Your task to perform on an android device: turn vacation reply on in the gmail app Image 0: 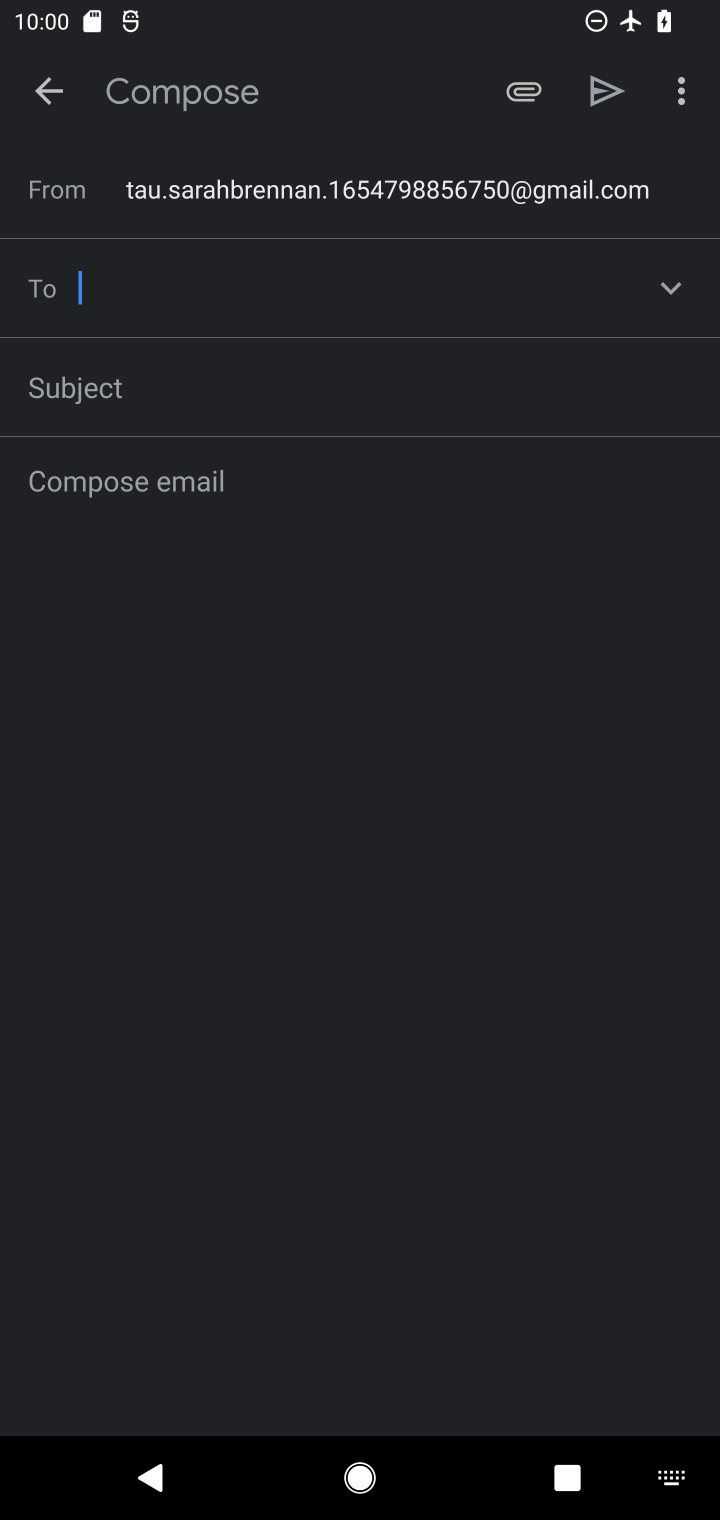
Step 0: press home button
Your task to perform on an android device: turn vacation reply on in the gmail app Image 1: 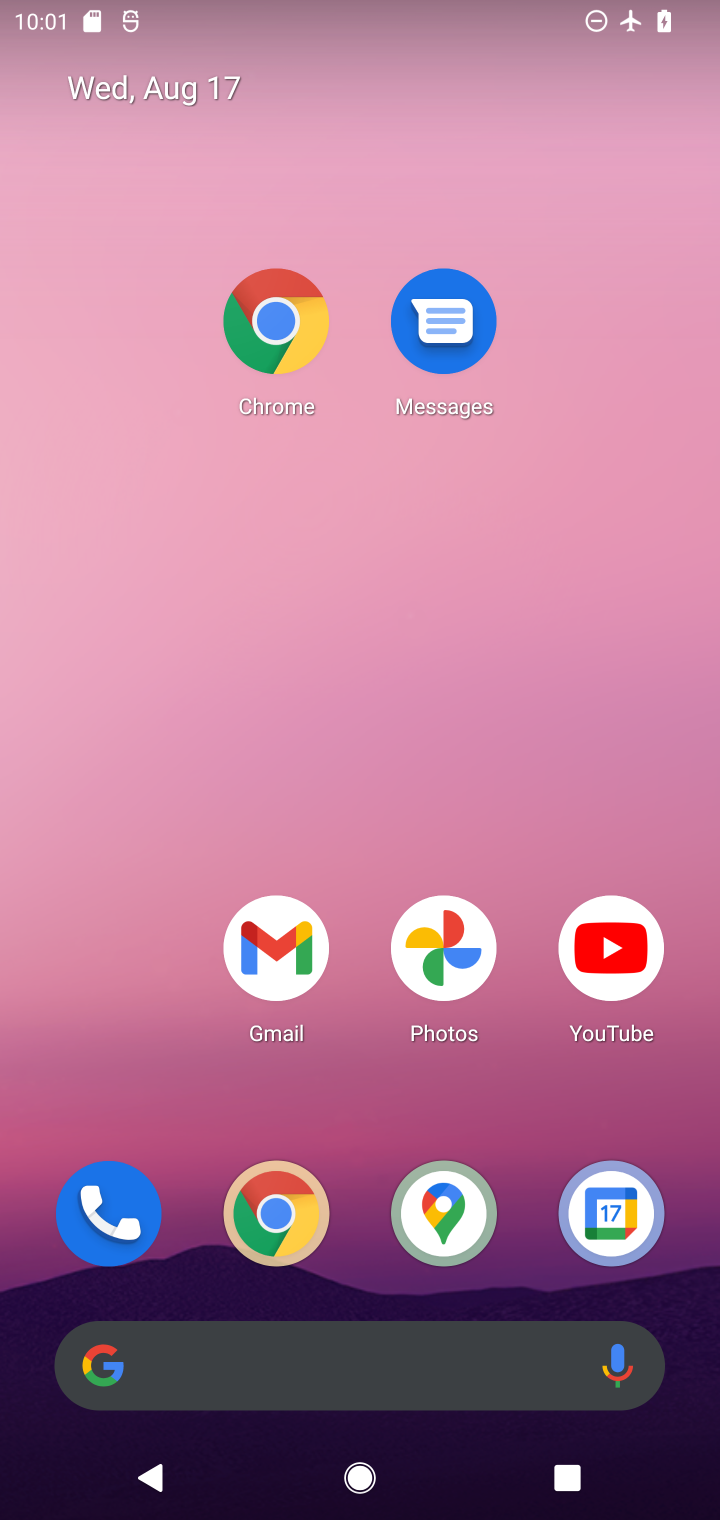
Step 1: click (299, 1012)
Your task to perform on an android device: turn vacation reply on in the gmail app Image 2: 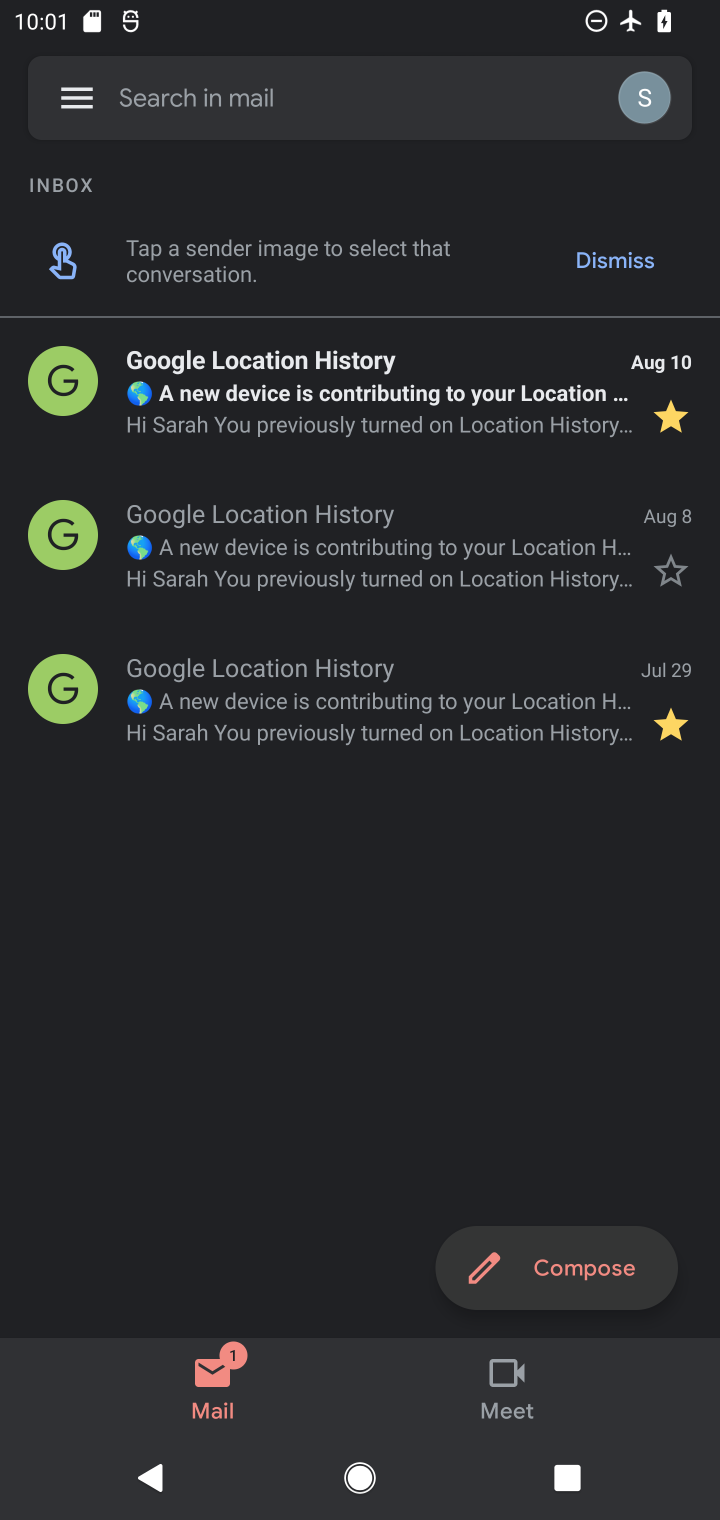
Step 2: click (109, 93)
Your task to perform on an android device: turn vacation reply on in the gmail app Image 3: 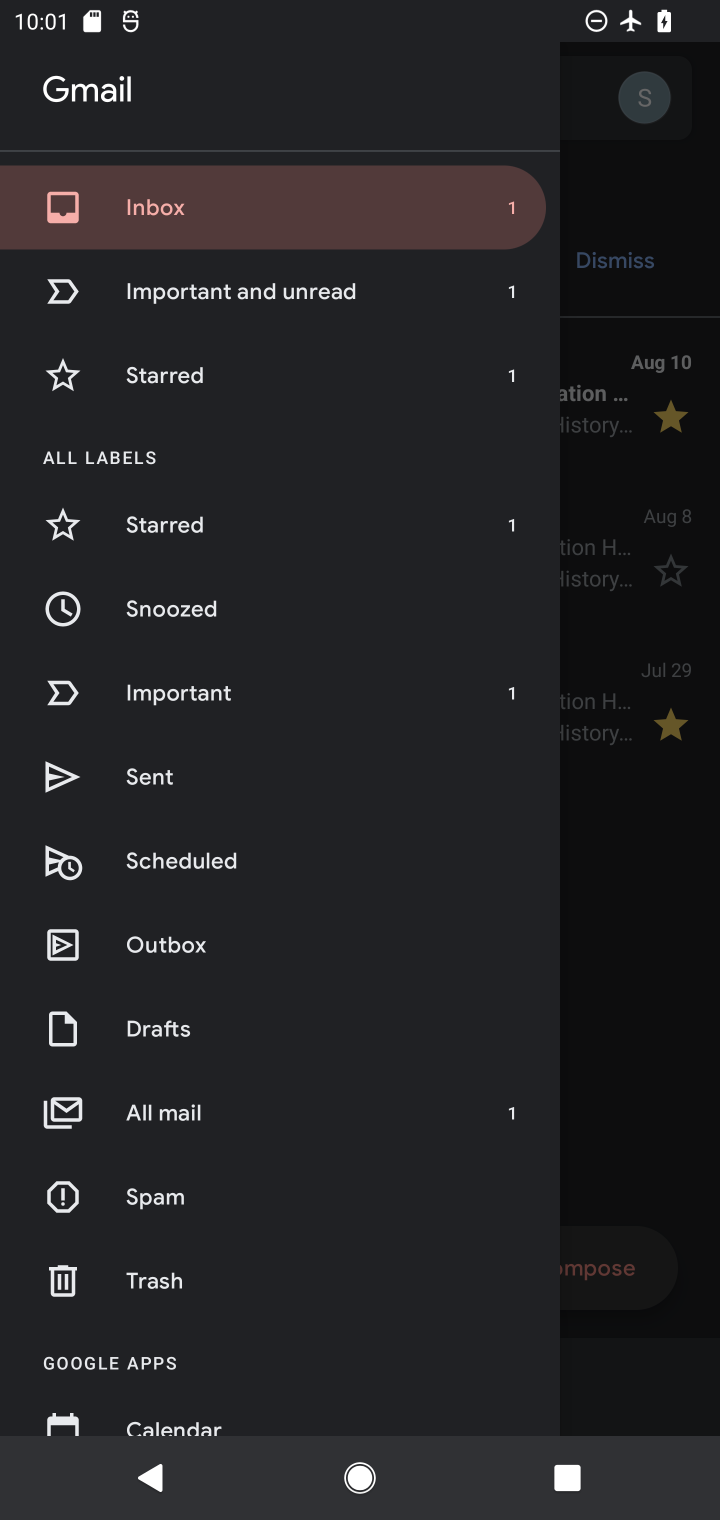
Step 3: drag from (254, 1382) to (239, 594)
Your task to perform on an android device: turn vacation reply on in the gmail app Image 4: 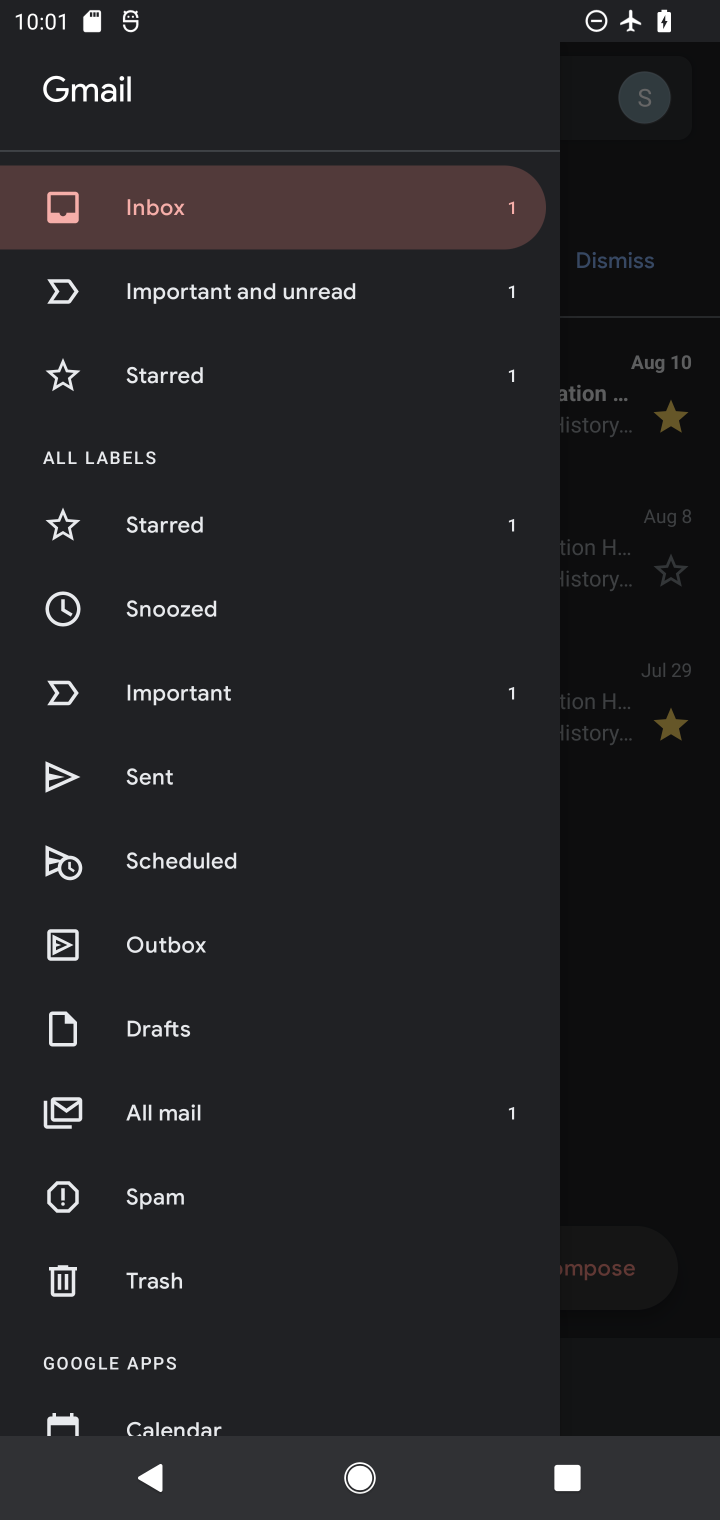
Step 4: drag from (271, 1332) to (274, 599)
Your task to perform on an android device: turn vacation reply on in the gmail app Image 5: 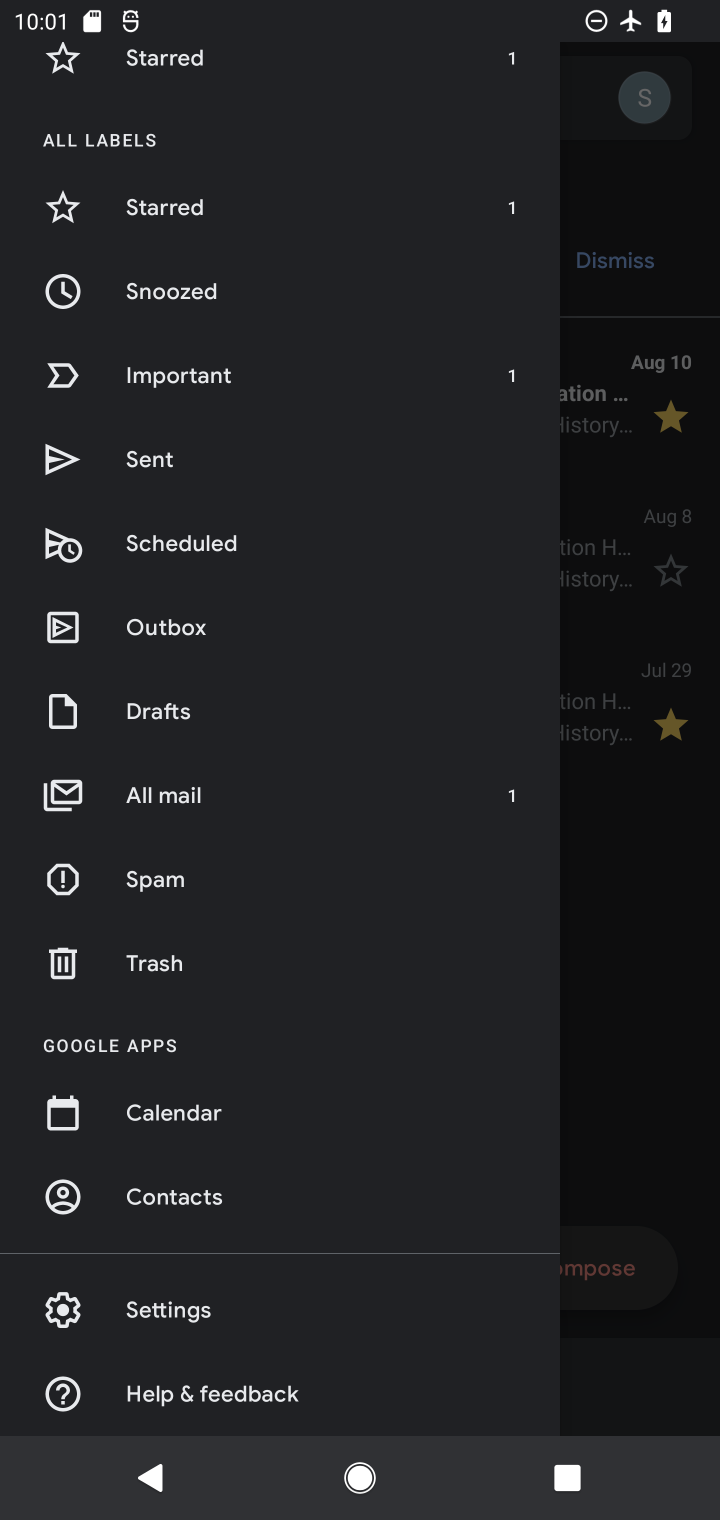
Step 5: click (203, 1295)
Your task to perform on an android device: turn vacation reply on in the gmail app Image 6: 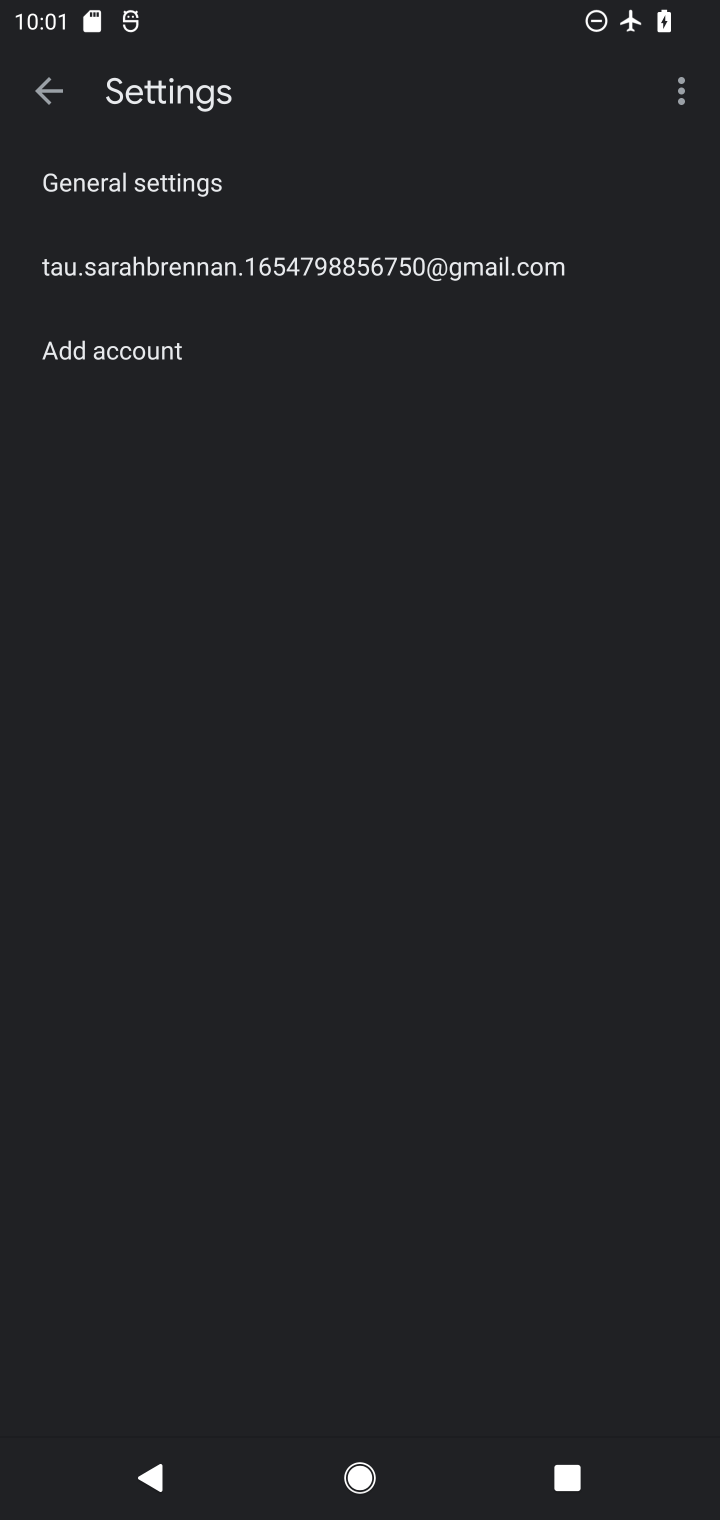
Step 6: click (408, 327)
Your task to perform on an android device: turn vacation reply on in the gmail app Image 7: 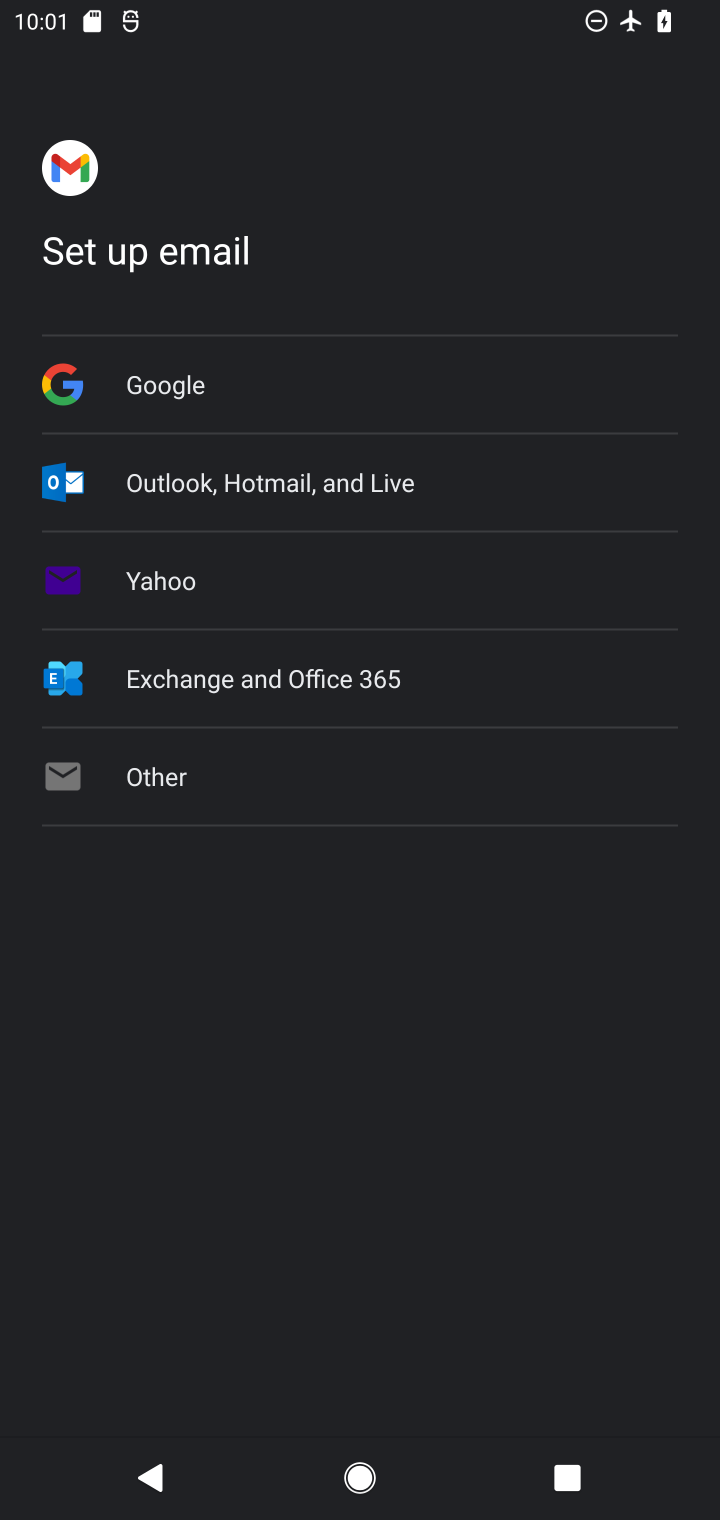
Step 7: task complete